Your task to perform on an android device: delete location history Image 0: 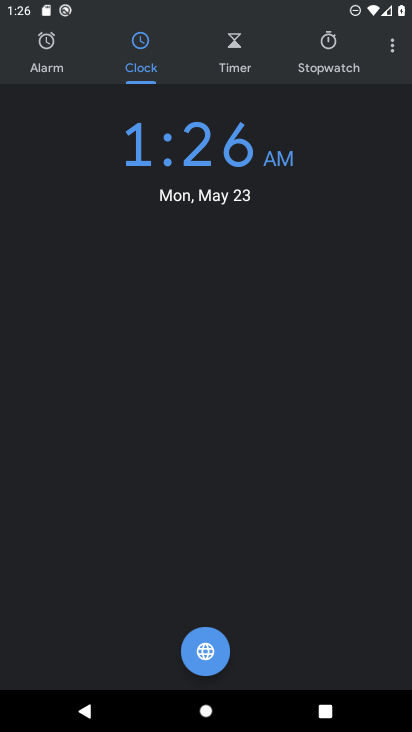
Step 0: press home button
Your task to perform on an android device: delete location history Image 1: 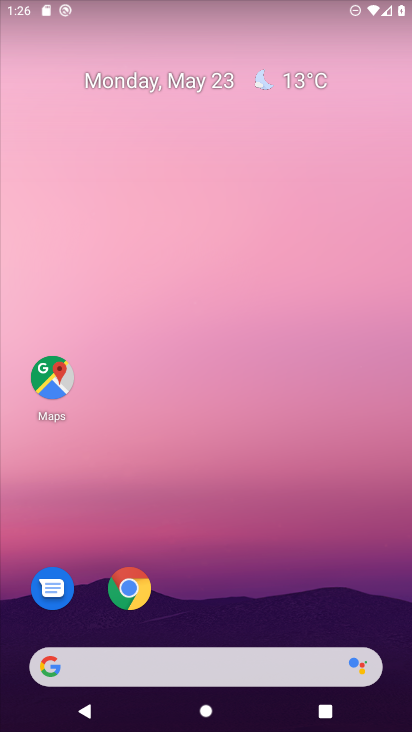
Step 1: drag from (214, 574) to (197, 252)
Your task to perform on an android device: delete location history Image 2: 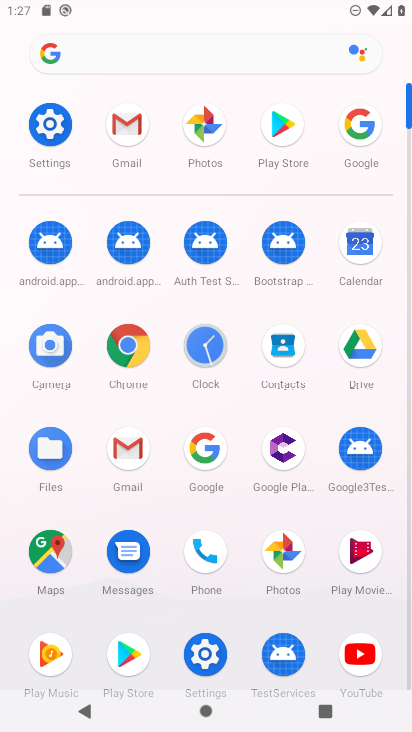
Step 2: click (55, 123)
Your task to perform on an android device: delete location history Image 3: 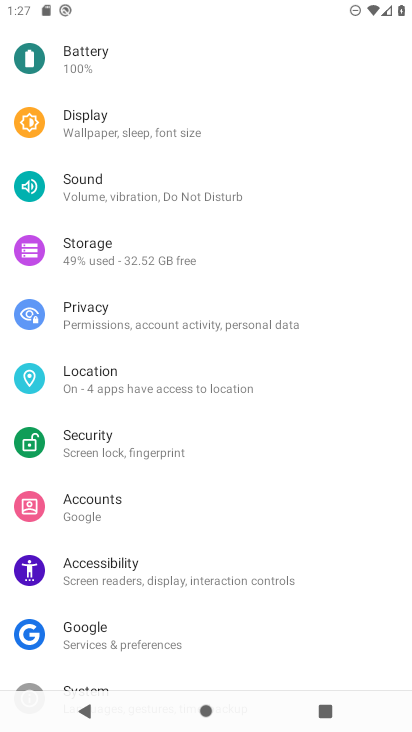
Step 3: click (123, 378)
Your task to perform on an android device: delete location history Image 4: 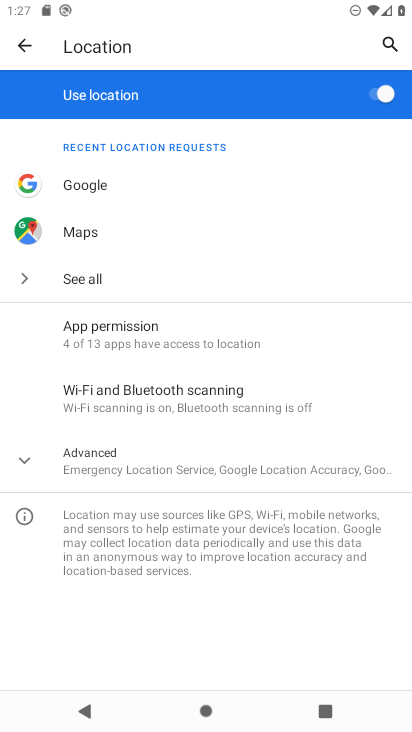
Step 4: click (206, 462)
Your task to perform on an android device: delete location history Image 5: 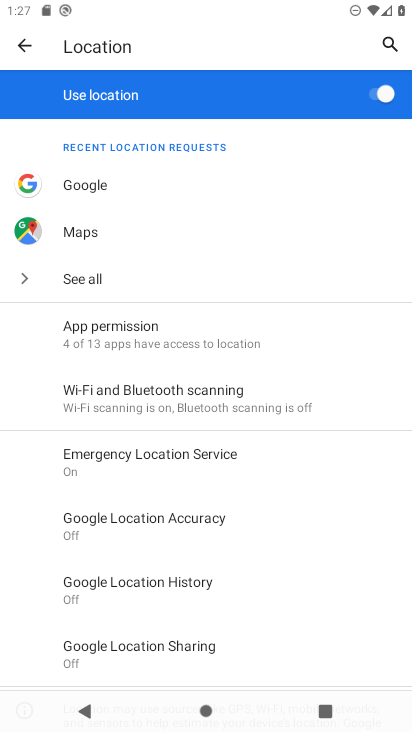
Step 5: click (200, 595)
Your task to perform on an android device: delete location history Image 6: 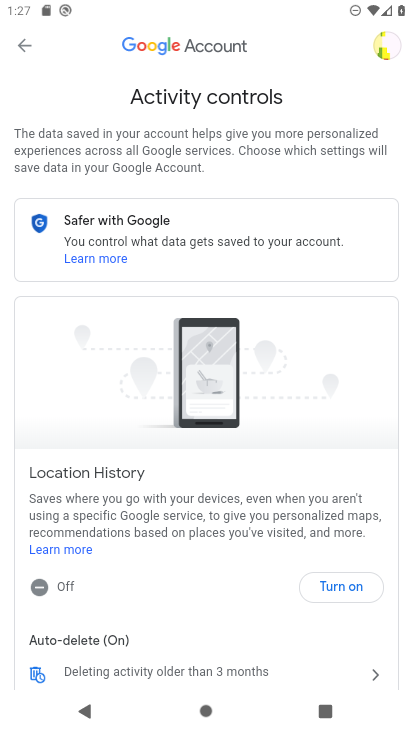
Step 6: drag from (221, 643) to (206, 366)
Your task to perform on an android device: delete location history Image 7: 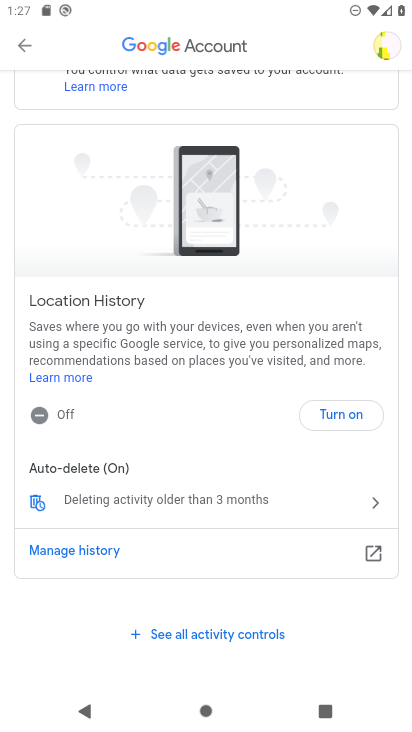
Step 7: click (209, 490)
Your task to perform on an android device: delete location history Image 8: 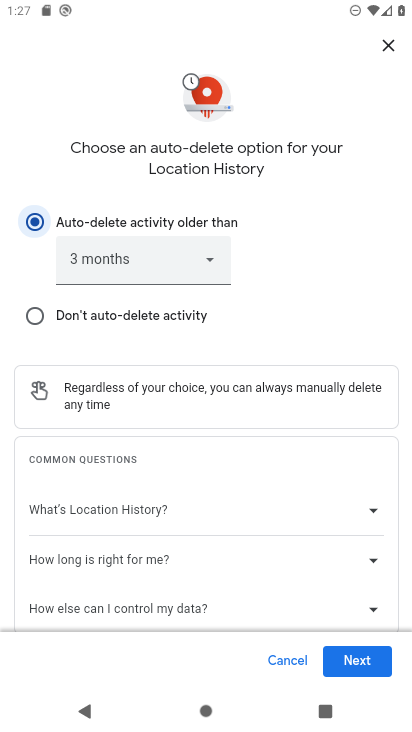
Step 8: click (369, 662)
Your task to perform on an android device: delete location history Image 9: 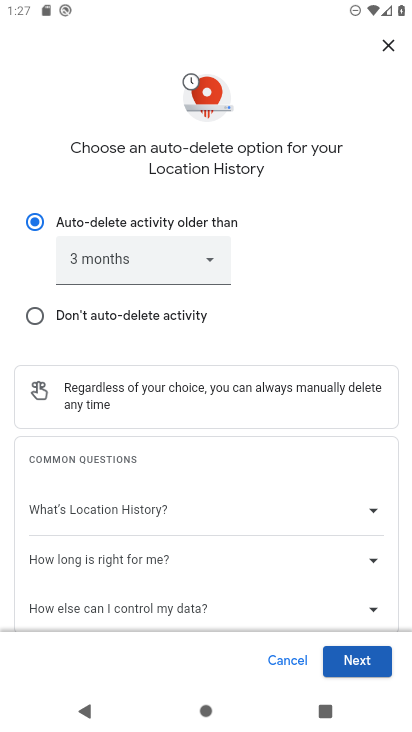
Step 9: click (353, 662)
Your task to perform on an android device: delete location history Image 10: 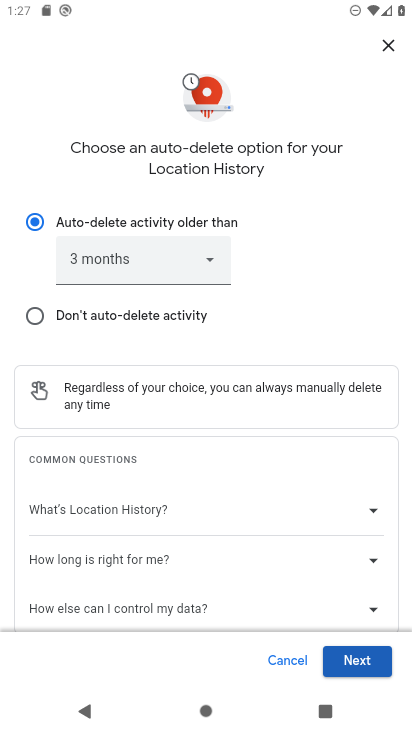
Step 10: click (369, 668)
Your task to perform on an android device: delete location history Image 11: 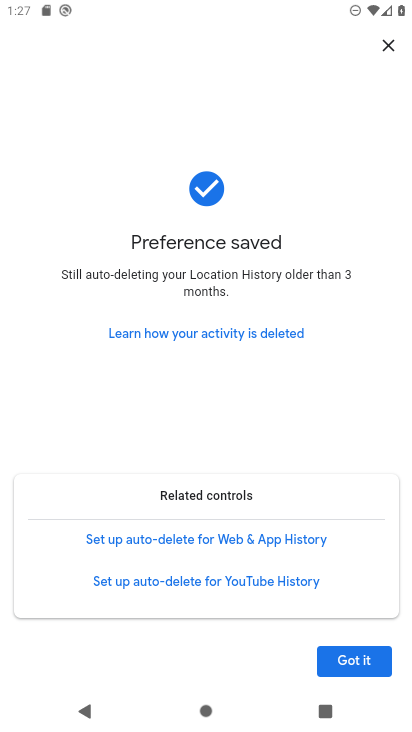
Step 11: click (369, 668)
Your task to perform on an android device: delete location history Image 12: 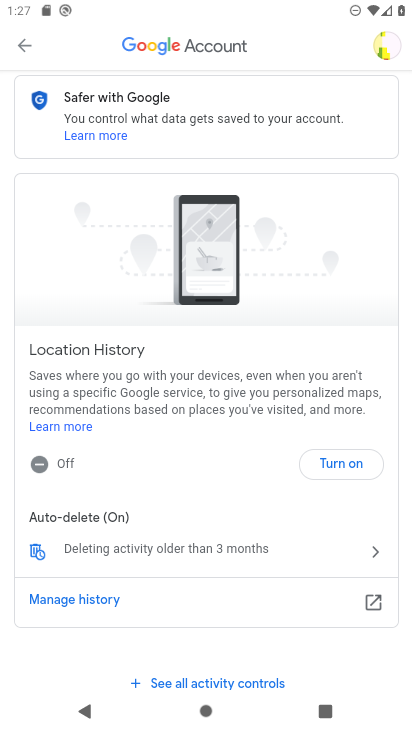
Step 12: task complete